Your task to perform on an android device: Go to CNN.com Image 0: 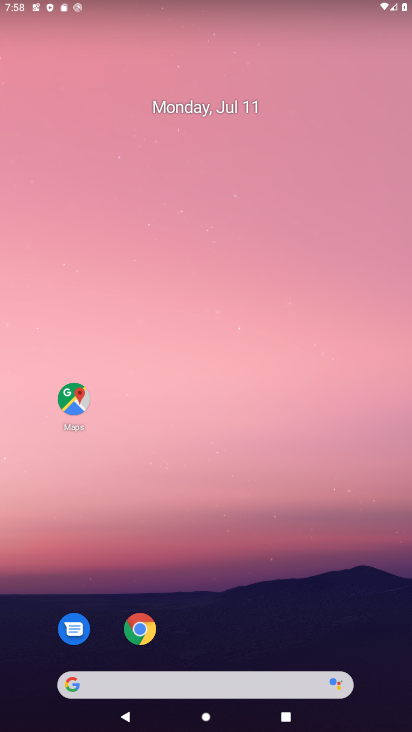
Step 0: drag from (218, 642) to (230, 67)
Your task to perform on an android device: Go to CNN.com Image 1: 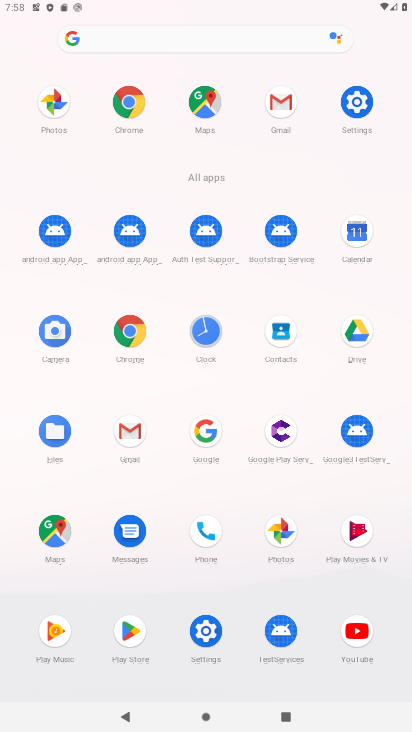
Step 1: click (207, 427)
Your task to perform on an android device: Go to CNN.com Image 2: 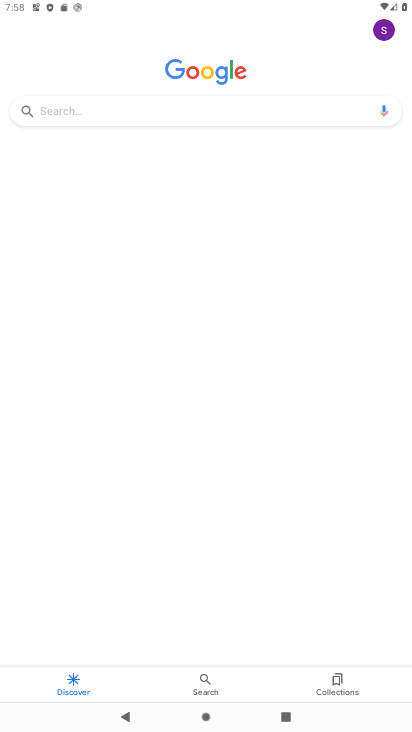
Step 2: click (174, 98)
Your task to perform on an android device: Go to CNN.com Image 3: 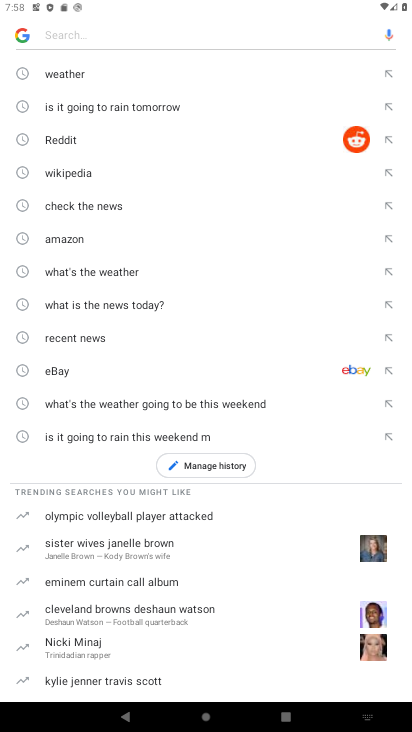
Step 3: type "Cnn.com"
Your task to perform on an android device: Go to CNN.com Image 4: 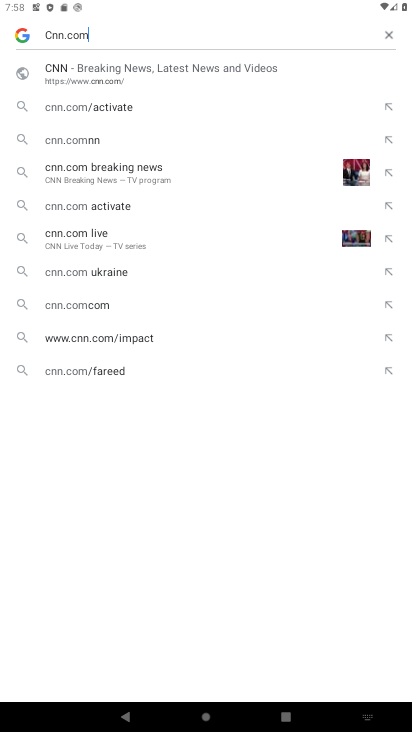
Step 4: click (90, 80)
Your task to perform on an android device: Go to CNN.com Image 5: 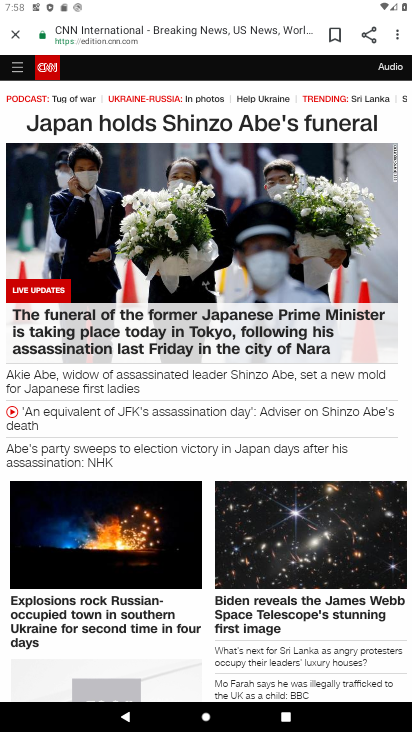
Step 5: task complete